Your task to perform on an android device: Go to notification settings Image 0: 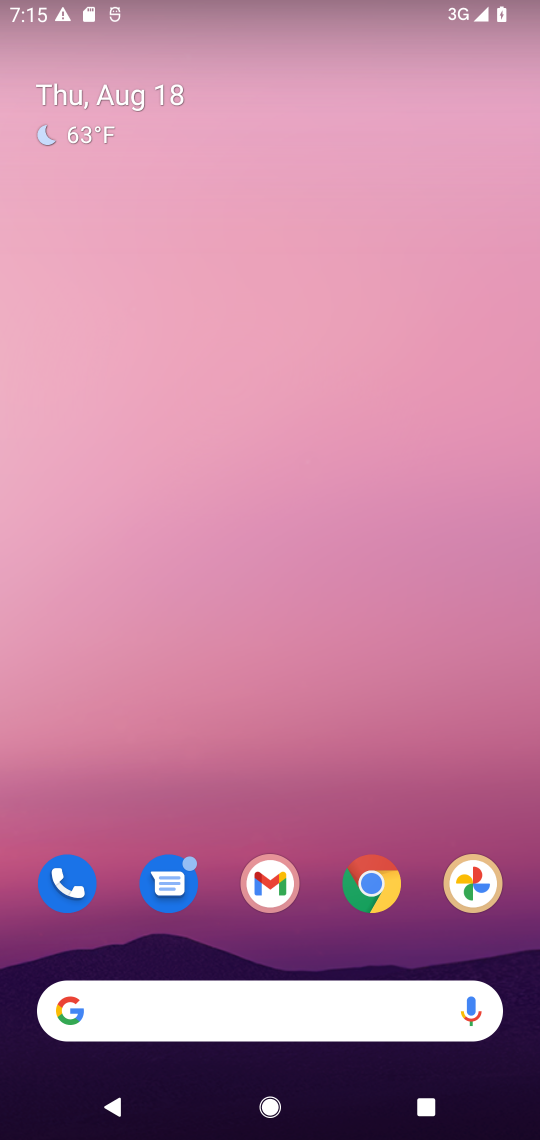
Step 0: drag from (11, 1102) to (241, 290)
Your task to perform on an android device: Go to notification settings Image 1: 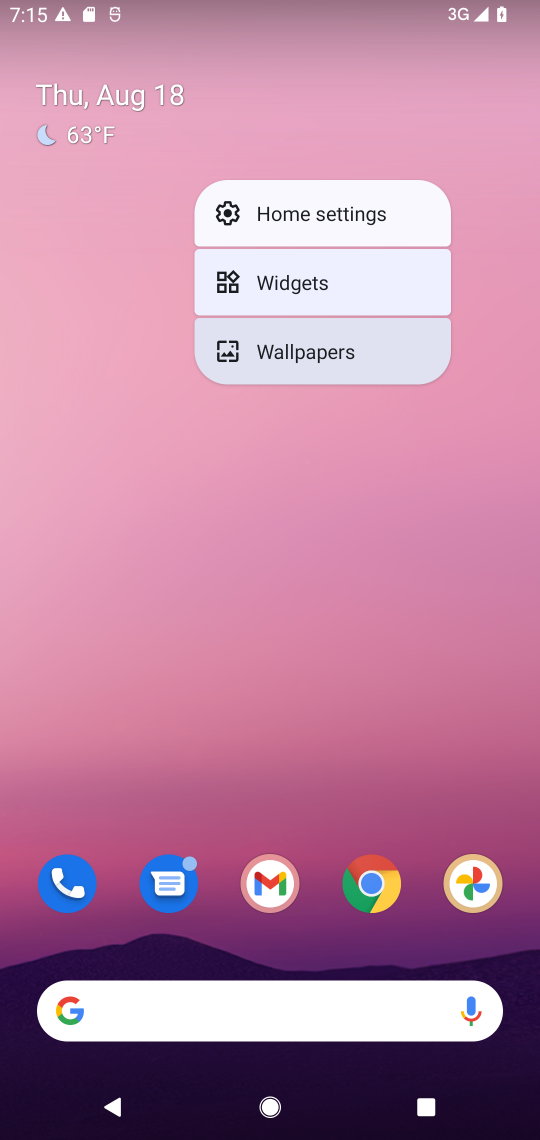
Step 1: drag from (34, 1089) to (120, 96)
Your task to perform on an android device: Go to notification settings Image 2: 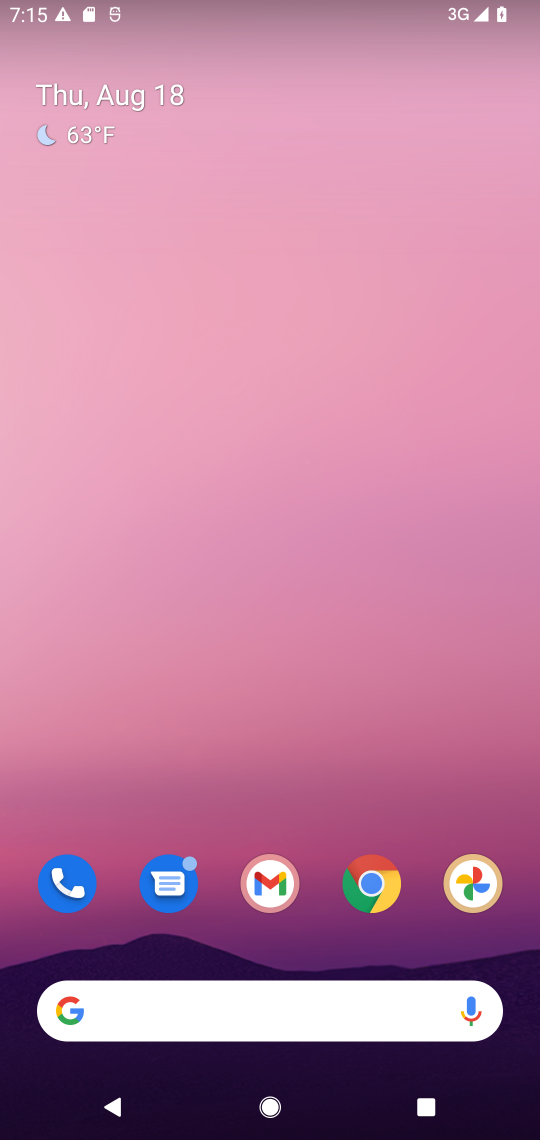
Step 2: drag from (53, 1096) to (427, 250)
Your task to perform on an android device: Go to notification settings Image 3: 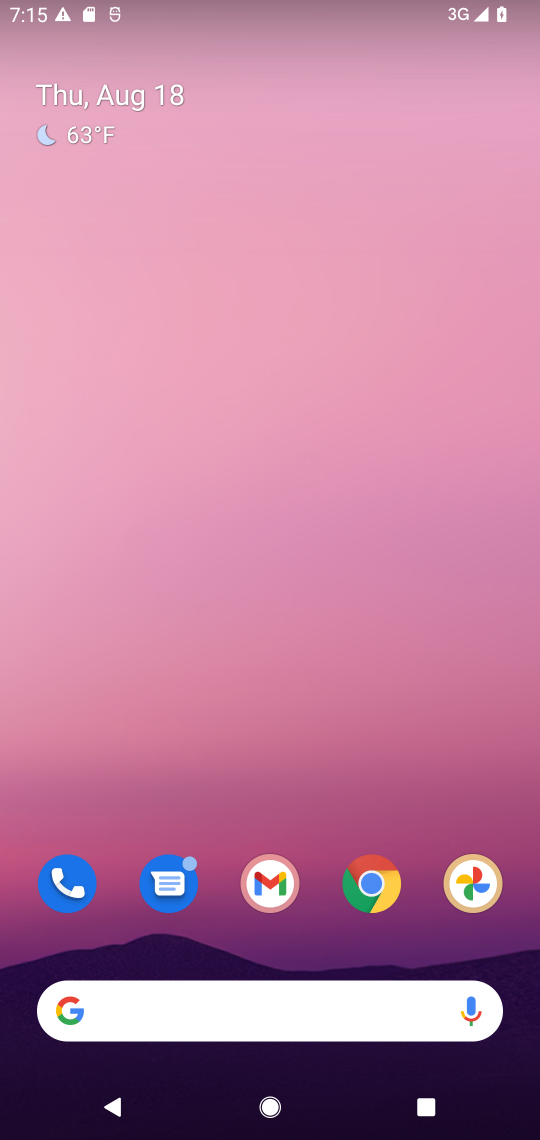
Step 3: drag from (68, 890) to (87, 465)
Your task to perform on an android device: Go to notification settings Image 4: 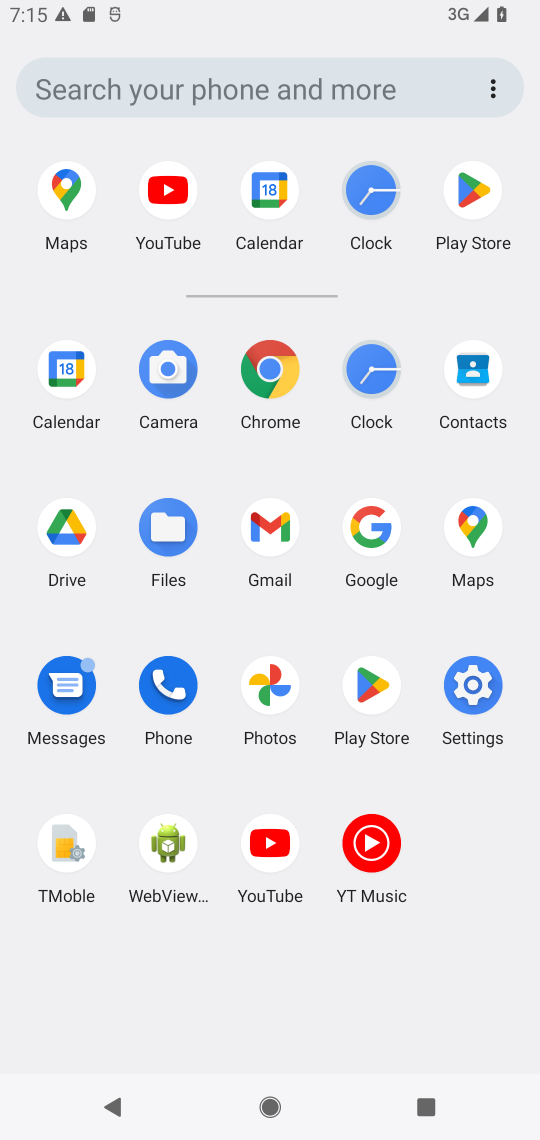
Step 4: click (473, 681)
Your task to perform on an android device: Go to notification settings Image 5: 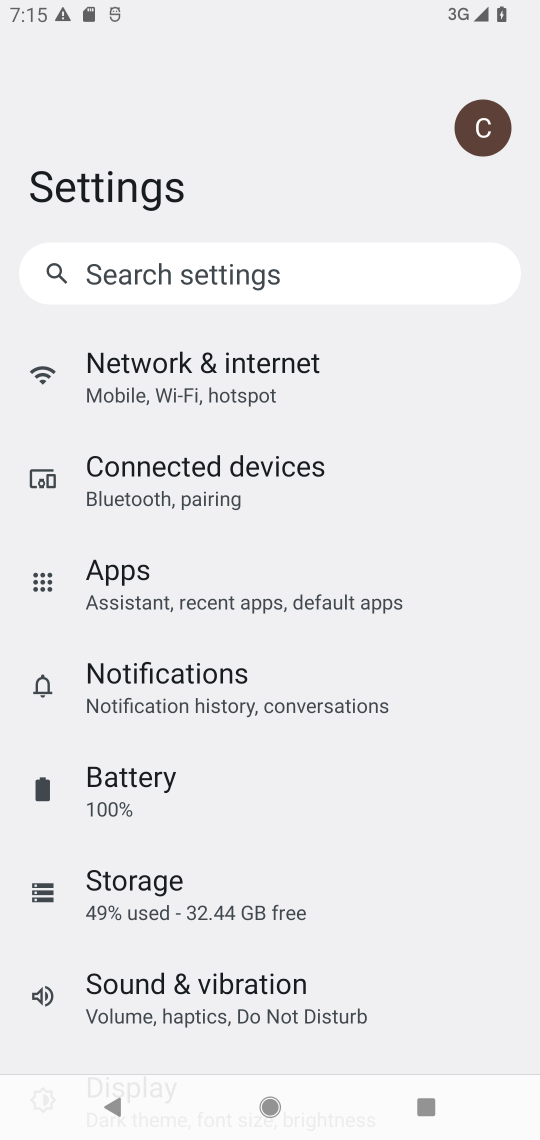
Step 5: drag from (396, 1002) to (364, 493)
Your task to perform on an android device: Go to notification settings Image 6: 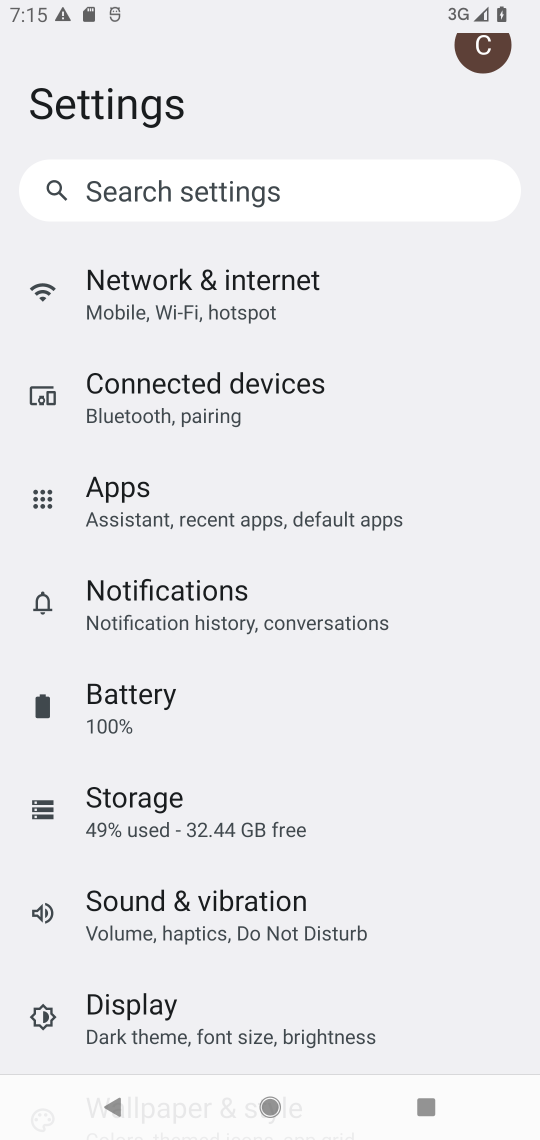
Step 6: drag from (418, 1002) to (507, 253)
Your task to perform on an android device: Go to notification settings Image 7: 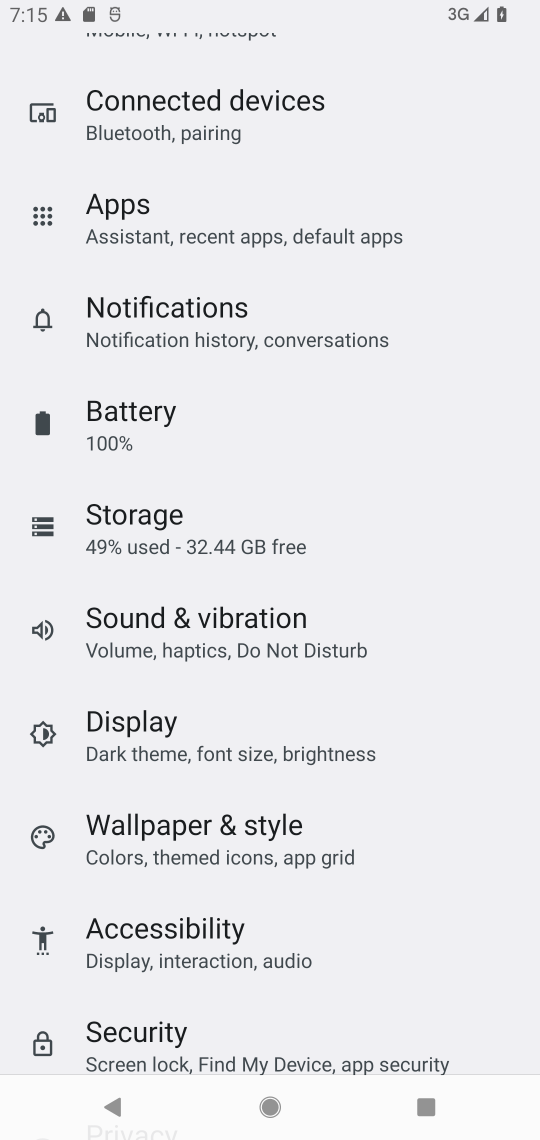
Step 7: click (197, 328)
Your task to perform on an android device: Go to notification settings Image 8: 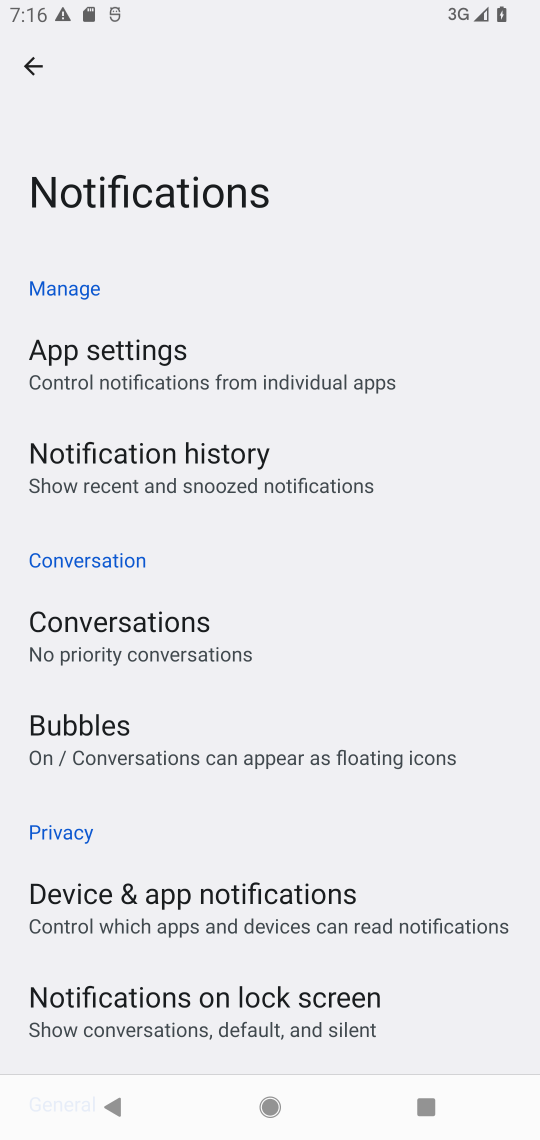
Step 8: task complete